Your task to perform on an android device: toggle data saver in the chrome app Image 0: 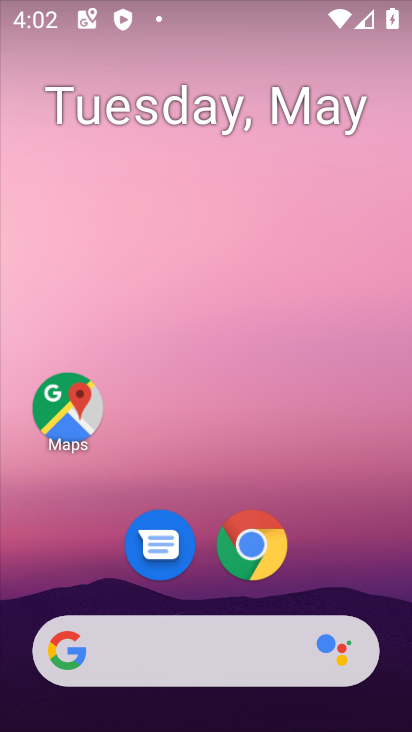
Step 0: click (251, 548)
Your task to perform on an android device: toggle data saver in the chrome app Image 1: 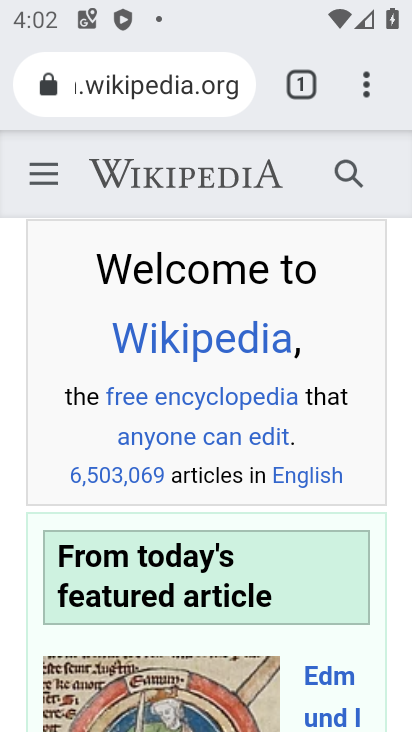
Step 1: click (367, 83)
Your task to perform on an android device: toggle data saver in the chrome app Image 2: 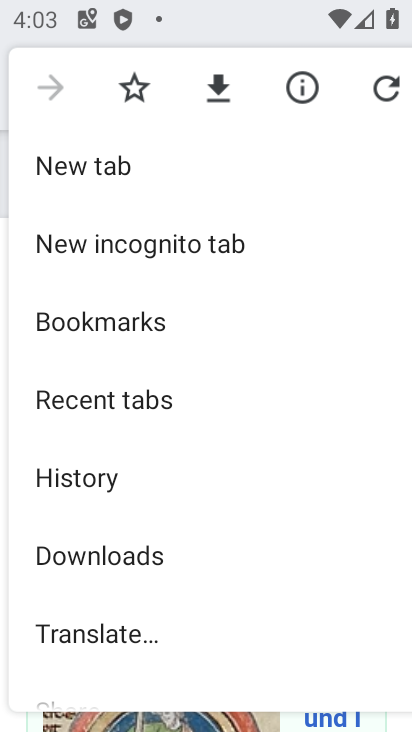
Step 2: drag from (120, 527) to (153, 405)
Your task to perform on an android device: toggle data saver in the chrome app Image 3: 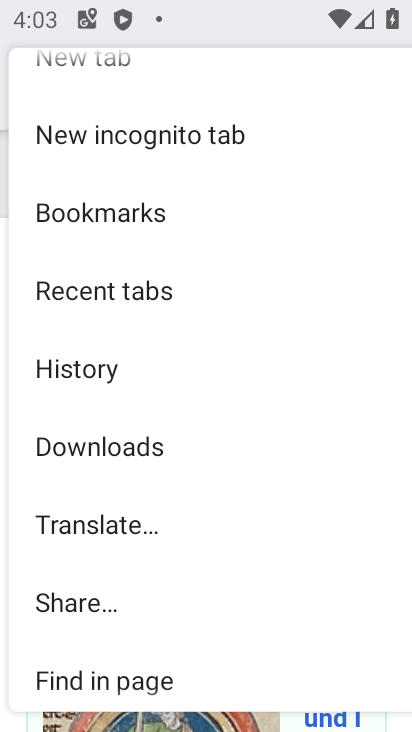
Step 3: drag from (93, 568) to (150, 449)
Your task to perform on an android device: toggle data saver in the chrome app Image 4: 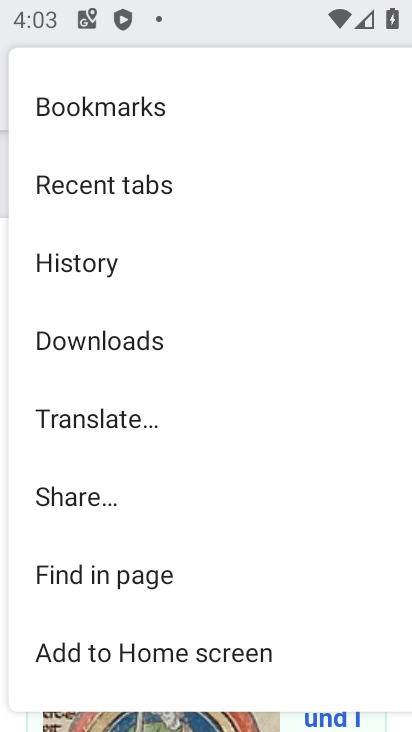
Step 4: drag from (73, 538) to (169, 415)
Your task to perform on an android device: toggle data saver in the chrome app Image 5: 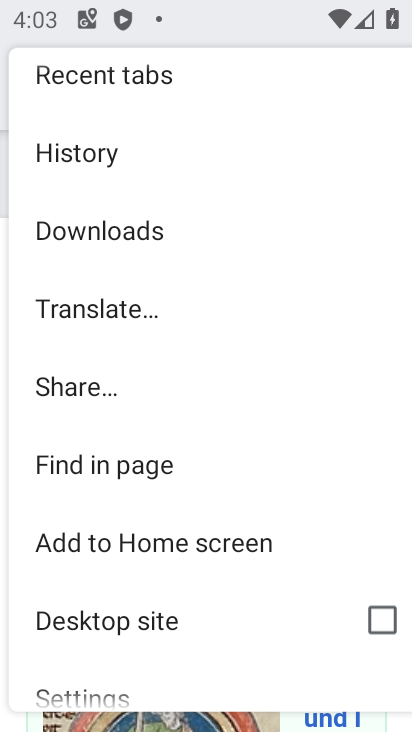
Step 5: drag from (87, 581) to (172, 456)
Your task to perform on an android device: toggle data saver in the chrome app Image 6: 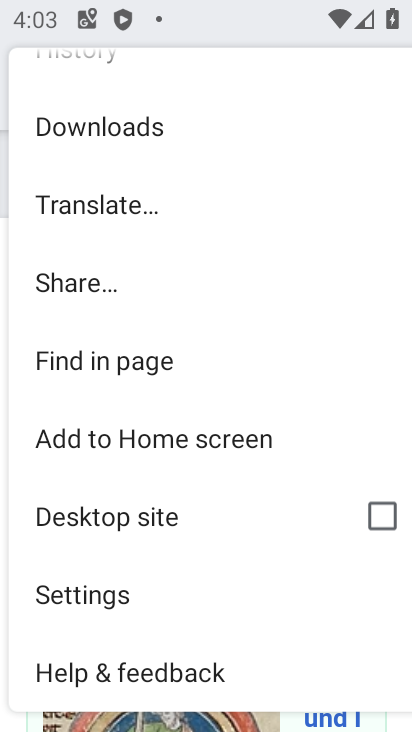
Step 6: click (101, 608)
Your task to perform on an android device: toggle data saver in the chrome app Image 7: 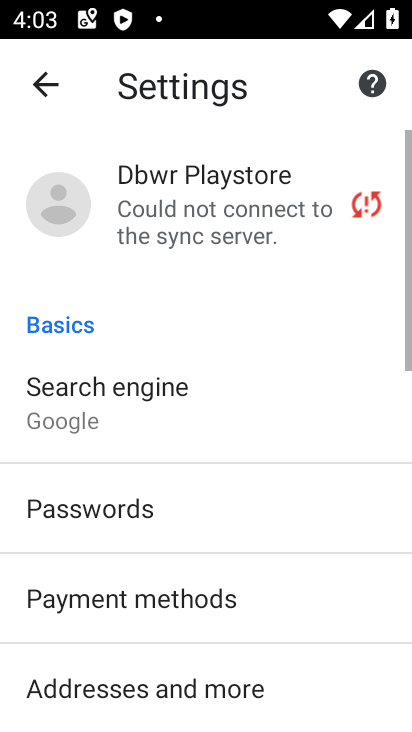
Step 7: drag from (152, 597) to (210, 431)
Your task to perform on an android device: toggle data saver in the chrome app Image 8: 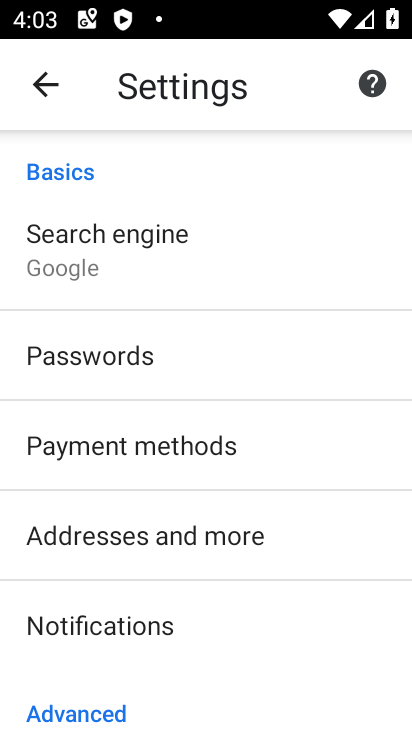
Step 8: click (196, 499)
Your task to perform on an android device: toggle data saver in the chrome app Image 9: 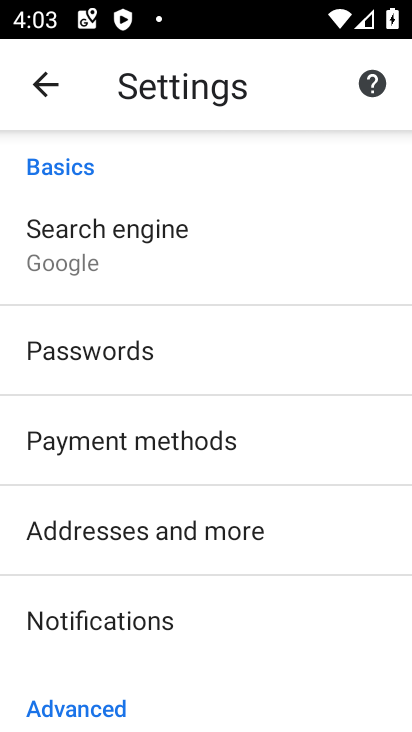
Step 9: drag from (147, 647) to (224, 519)
Your task to perform on an android device: toggle data saver in the chrome app Image 10: 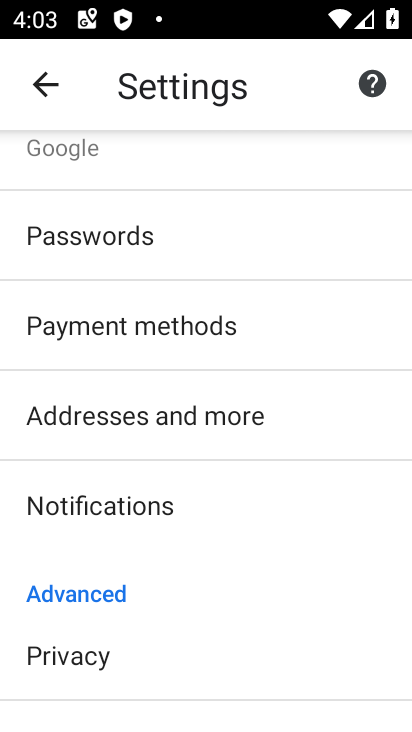
Step 10: drag from (159, 637) to (247, 509)
Your task to perform on an android device: toggle data saver in the chrome app Image 11: 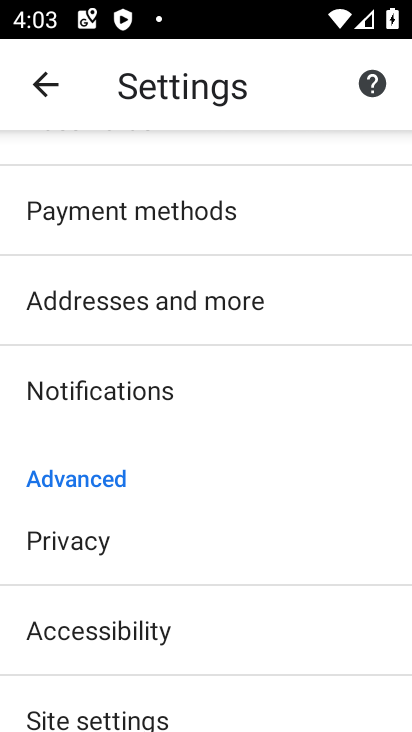
Step 11: drag from (184, 640) to (270, 504)
Your task to perform on an android device: toggle data saver in the chrome app Image 12: 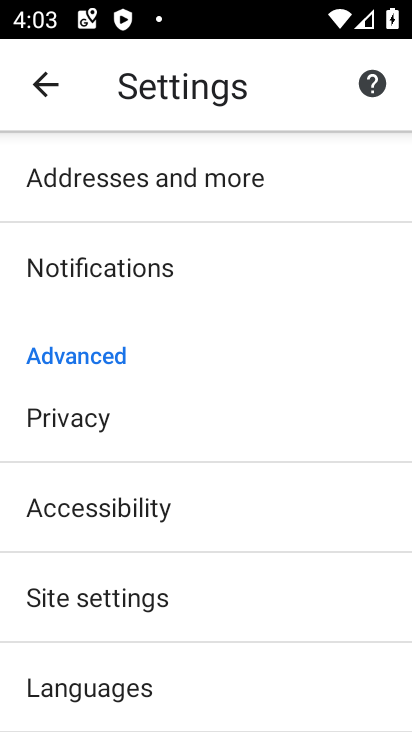
Step 12: drag from (236, 511) to (253, 472)
Your task to perform on an android device: toggle data saver in the chrome app Image 13: 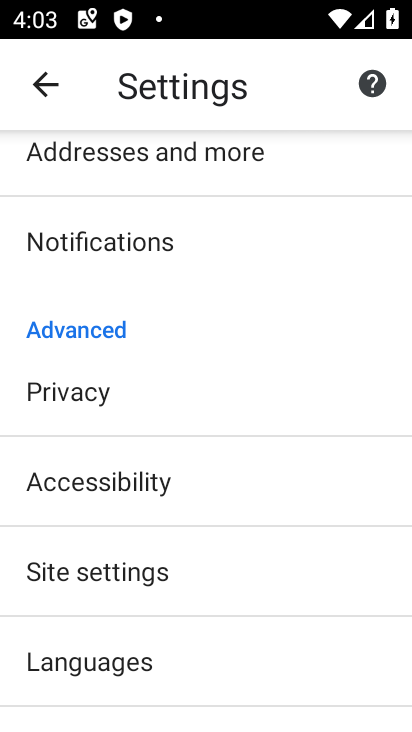
Step 13: drag from (214, 660) to (298, 369)
Your task to perform on an android device: toggle data saver in the chrome app Image 14: 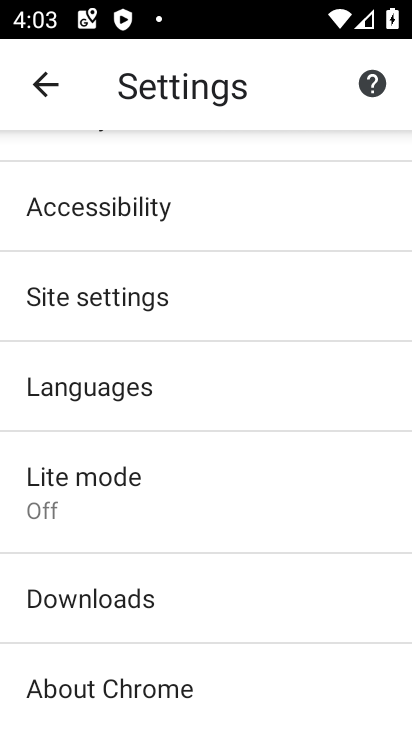
Step 14: click (112, 477)
Your task to perform on an android device: toggle data saver in the chrome app Image 15: 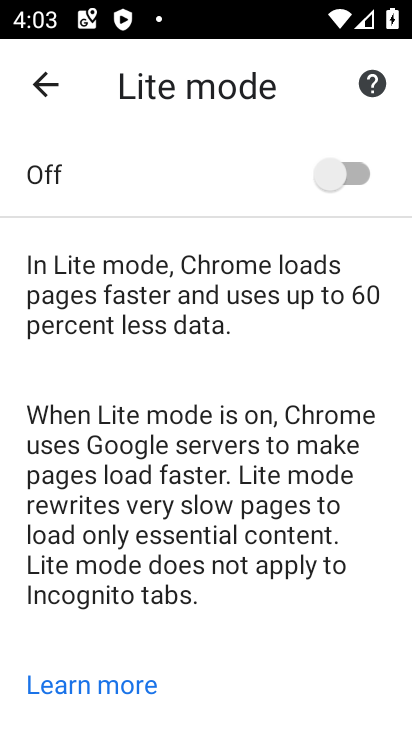
Step 15: click (349, 189)
Your task to perform on an android device: toggle data saver in the chrome app Image 16: 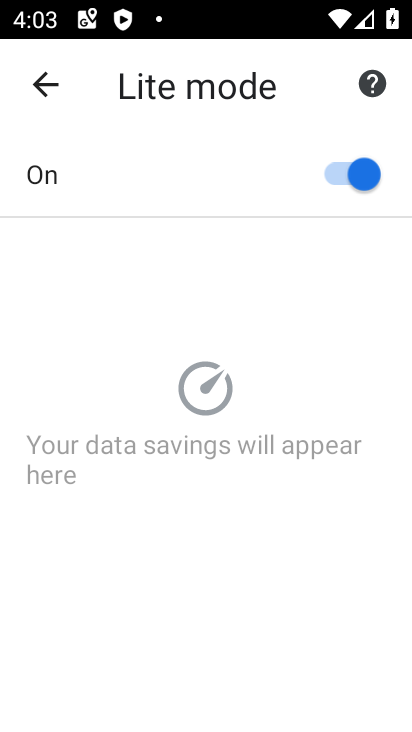
Step 16: task complete